Your task to perform on an android device: turn notification dots off Image 0: 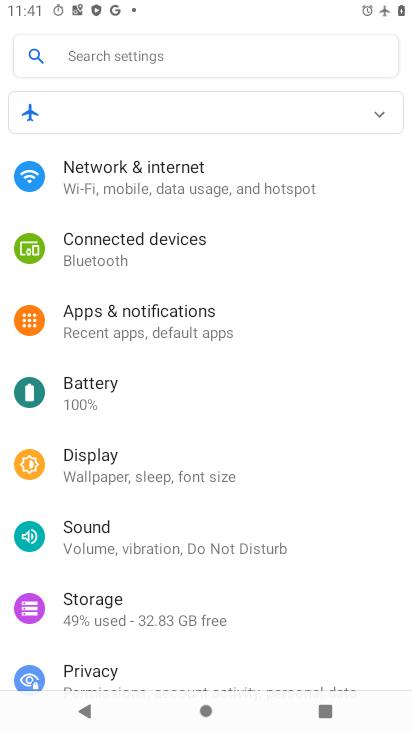
Step 0: press home button
Your task to perform on an android device: turn notification dots off Image 1: 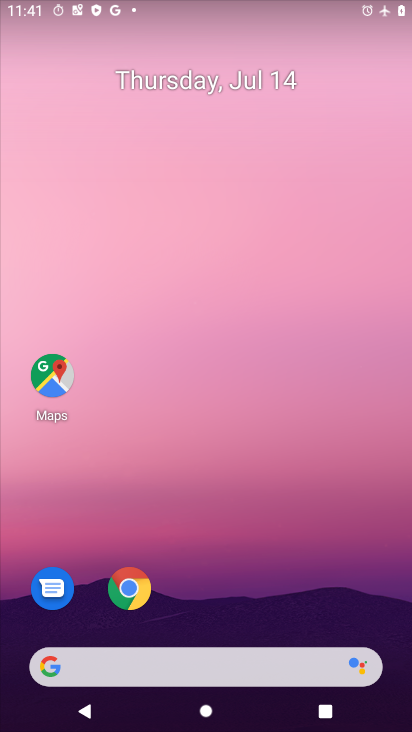
Step 1: drag from (303, 608) to (230, 166)
Your task to perform on an android device: turn notification dots off Image 2: 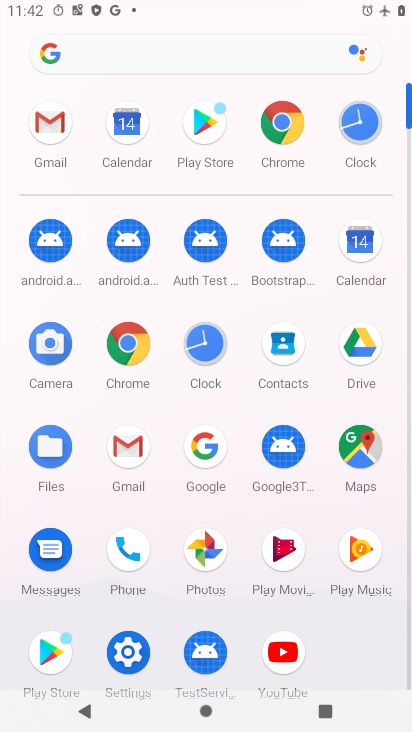
Step 2: click (127, 657)
Your task to perform on an android device: turn notification dots off Image 3: 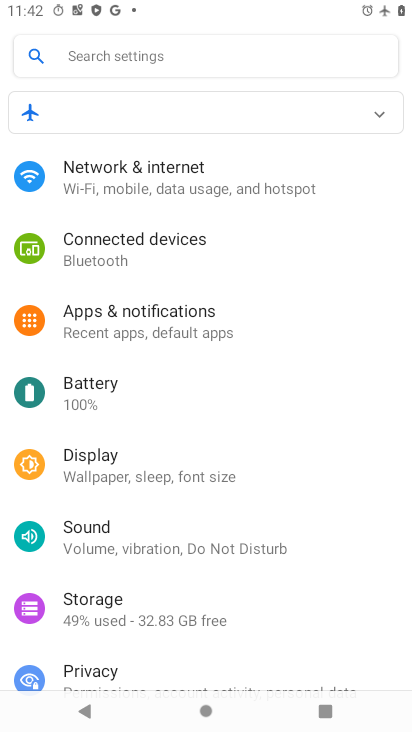
Step 3: click (143, 309)
Your task to perform on an android device: turn notification dots off Image 4: 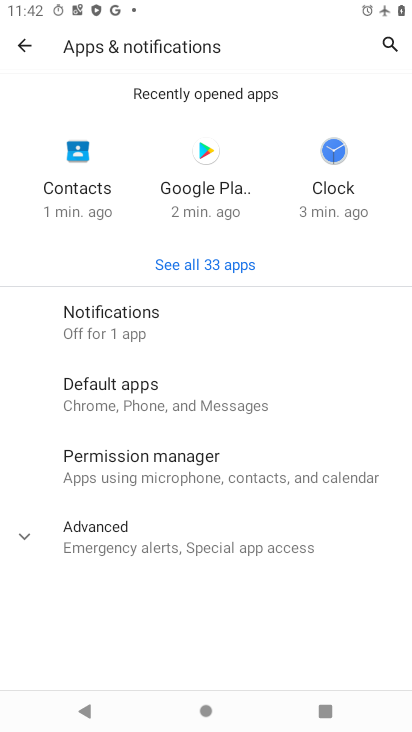
Step 4: click (45, 314)
Your task to perform on an android device: turn notification dots off Image 5: 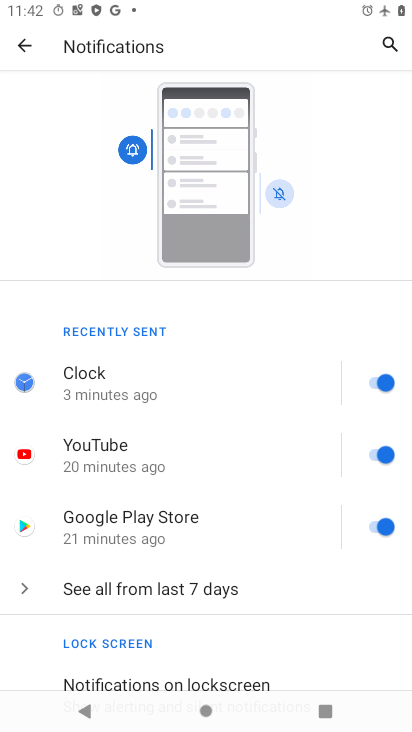
Step 5: drag from (136, 609) to (77, 28)
Your task to perform on an android device: turn notification dots off Image 6: 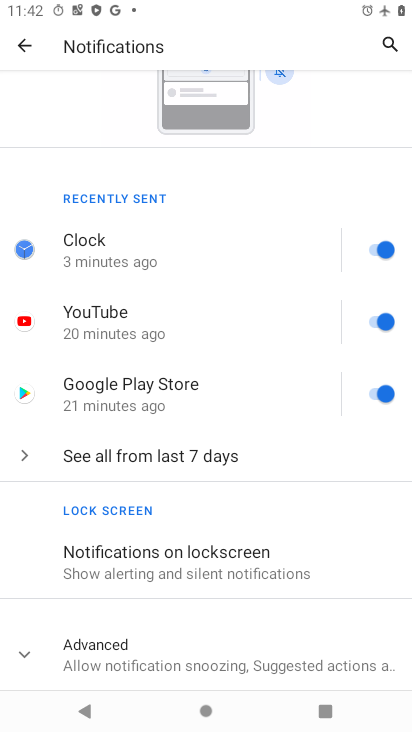
Step 6: click (85, 642)
Your task to perform on an android device: turn notification dots off Image 7: 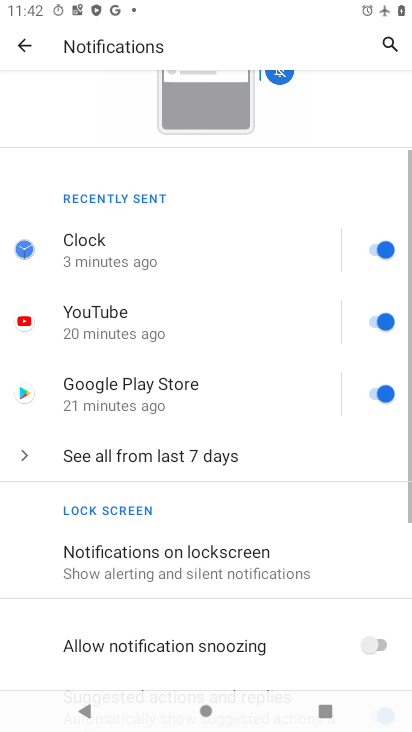
Step 7: drag from (147, 622) to (137, 134)
Your task to perform on an android device: turn notification dots off Image 8: 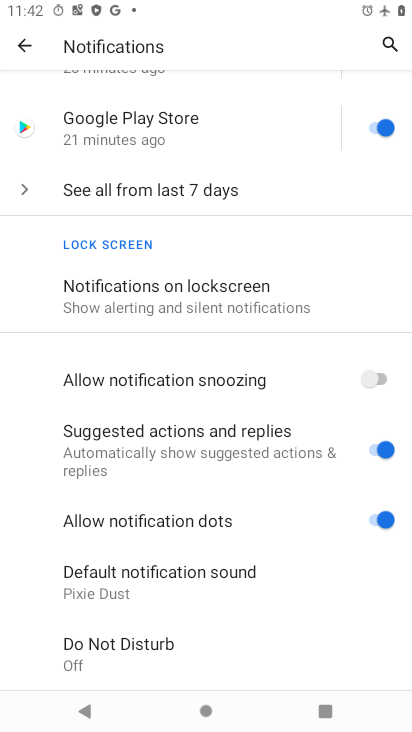
Step 8: click (175, 519)
Your task to perform on an android device: turn notification dots off Image 9: 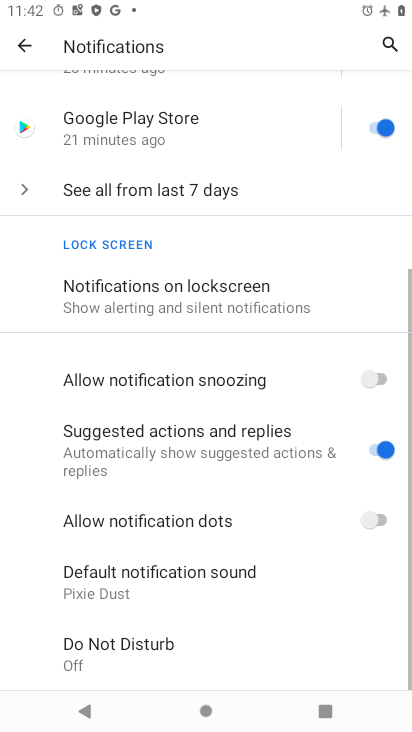
Step 9: task complete